Your task to perform on an android device: change the clock display to analog Image 0: 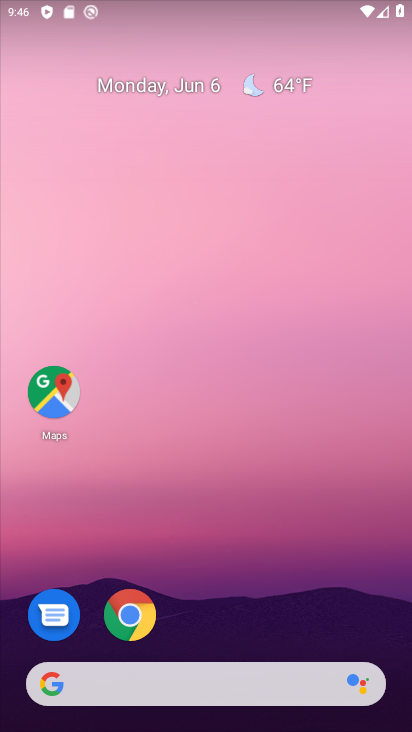
Step 0: drag from (225, 586) to (296, 36)
Your task to perform on an android device: change the clock display to analog Image 1: 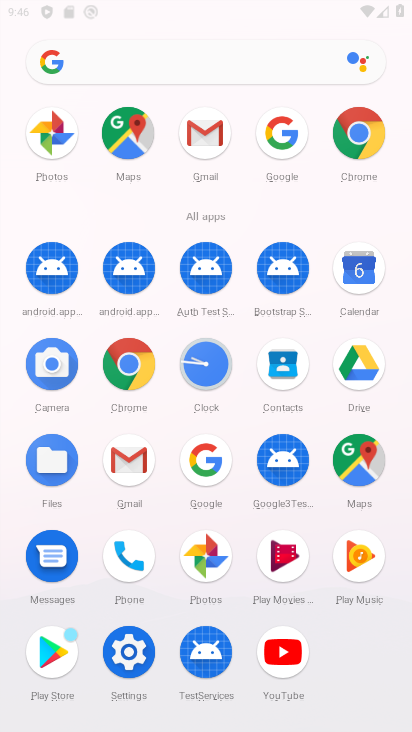
Step 1: click (217, 360)
Your task to perform on an android device: change the clock display to analog Image 2: 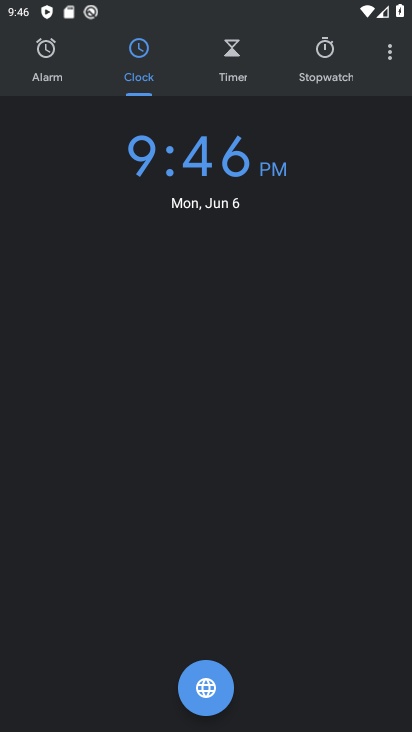
Step 2: click (387, 54)
Your task to perform on an android device: change the clock display to analog Image 3: 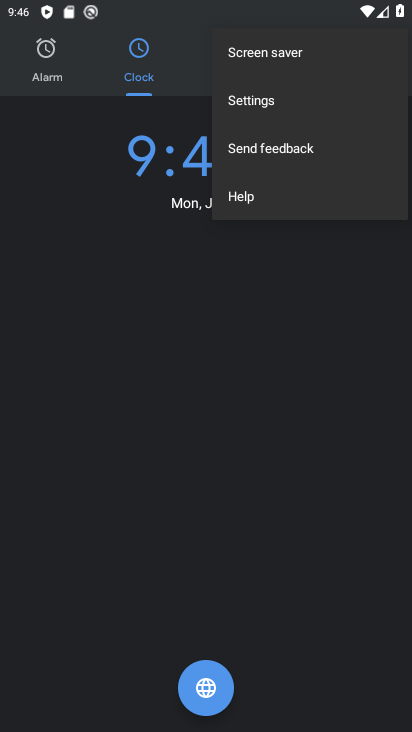
Step 3: click (236, 95)
Your task to perform on an android device: change the clock display to analog Image 4: 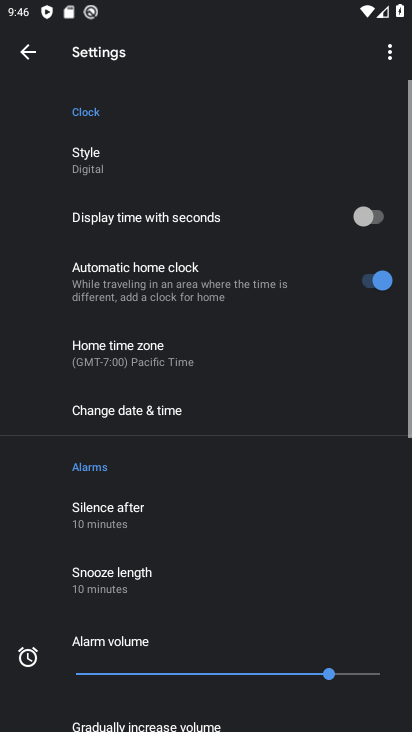
Step 4: click (104, 148)
Your task to perform on an android device: change the clock display to analog Image 5: 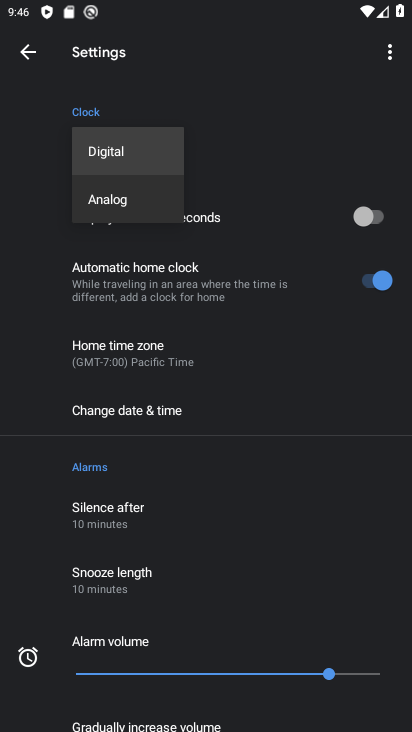
Step 5: click (103, 198)
Your task to perform on an android device: change the clock display to analog Image 6: 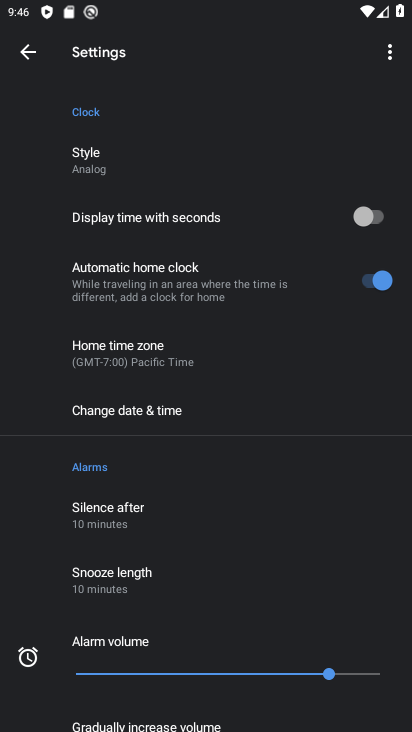
Step 6: task complete